Your task to perform on an android device: Is it going to rain this weekend? Image 0: 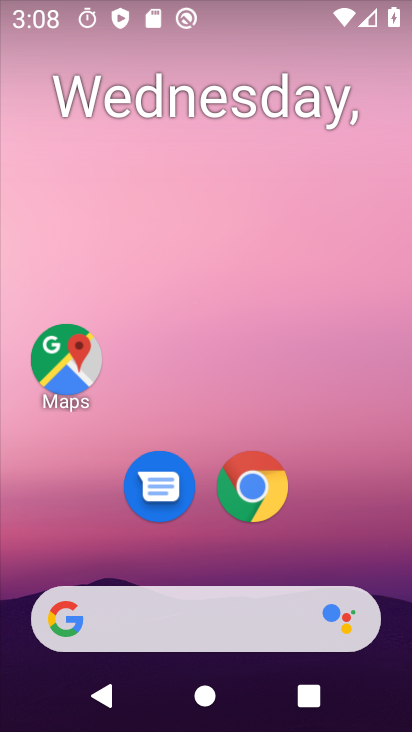
Step 0: drag from (229, 555) to (249, 32)
Your task to perform on an android device: Is it going to rain this weekend? Image 1: 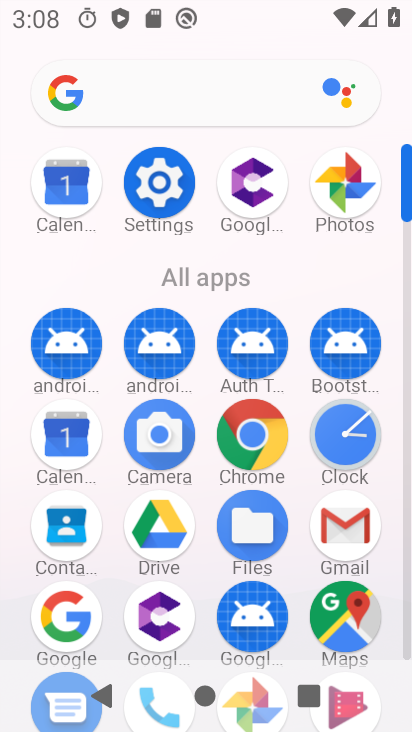
Step 1: click (69, 624)
Your task to perform on an android device: Is it going to rain this weekend? Image 2: 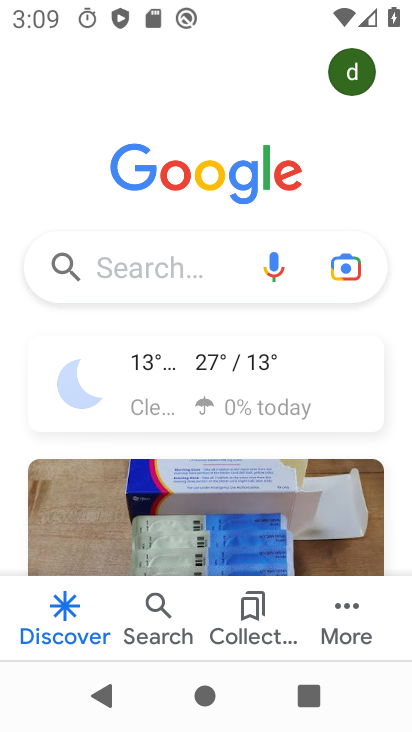
Step 2: click (172, 269)
Your task to perform on an android device: Is it going to rain this weekend? Image 3: 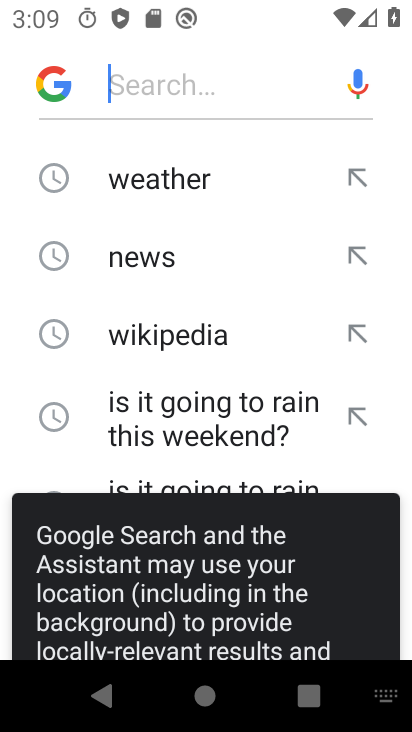
Step 3: drag from (217, 405) to (234, 179)
Your task to perform on an android device: Is it going to rain this weekend? Image 4: 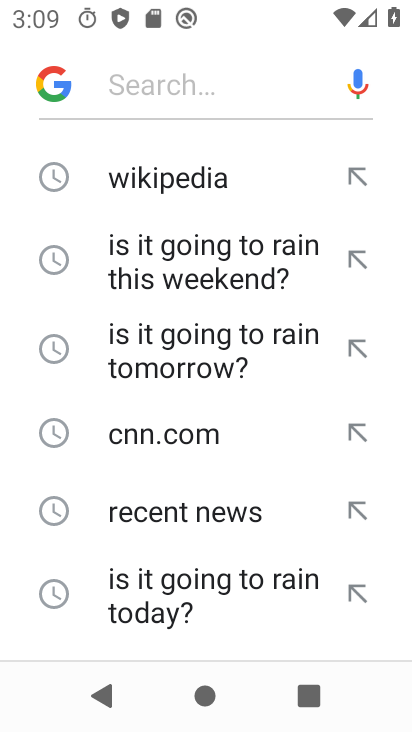
Step 4: click (211, 276)
Your task to perform on an android device: Is it going to rain this weekend? Image 5: 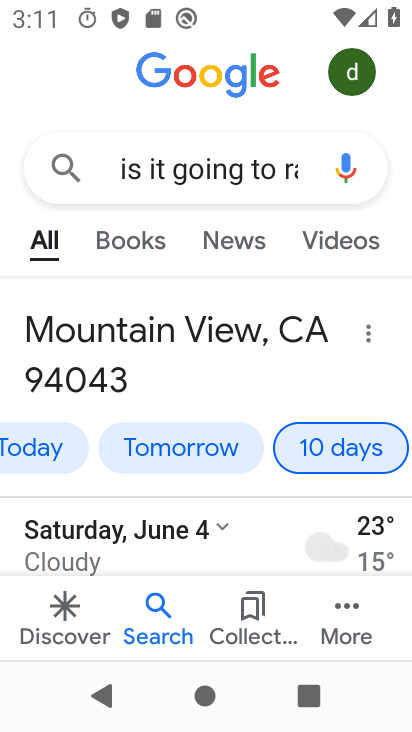
Step 5: task complete